Your task to perform on an android device: Open my contact list Image 0: 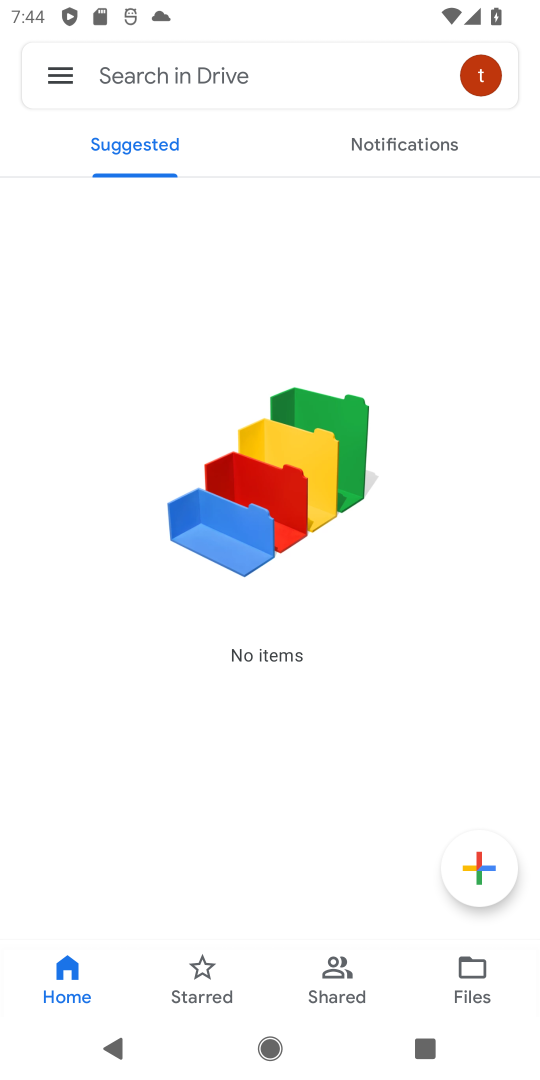
Step 0: press home button
Your task to perform on an android device: Open my contact list Image 1: 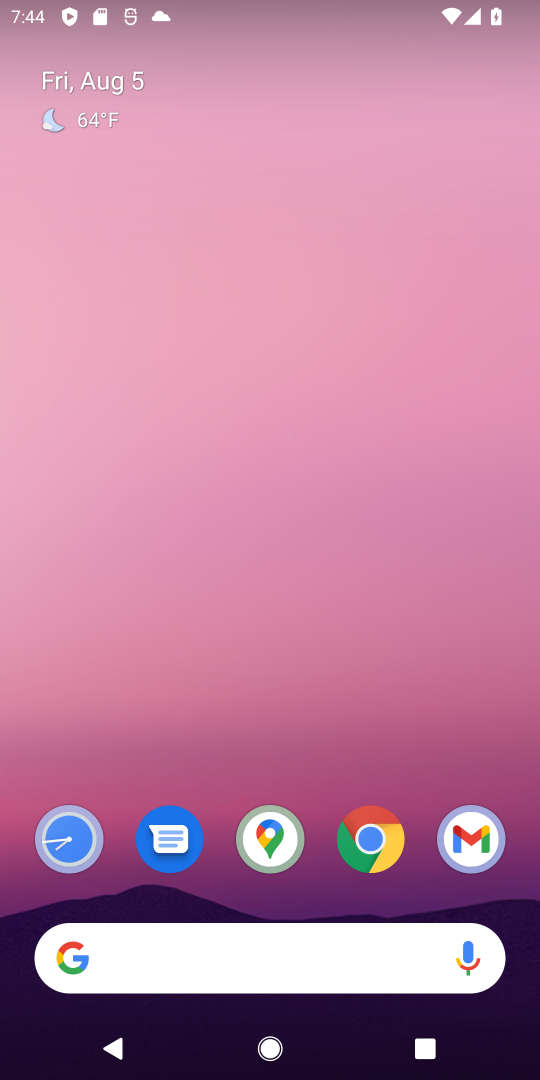
Step 1: drag from (314, 637) to (314, 110)
Your task to perform on an android device: Open my contact list Image 2: 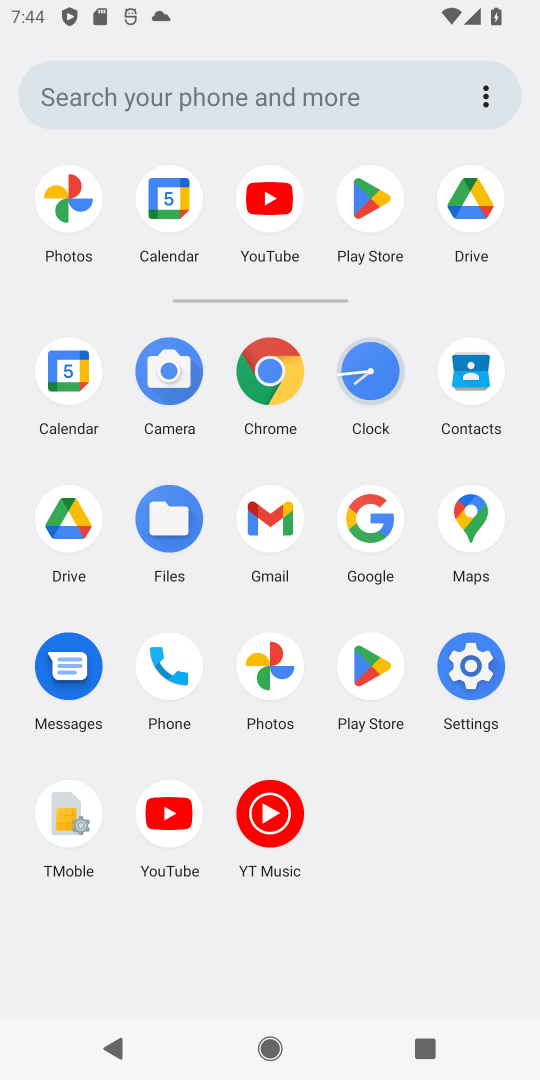
Step 2: click (477, 386)
Your task to perform on an android device: Open my contact list Image 3: 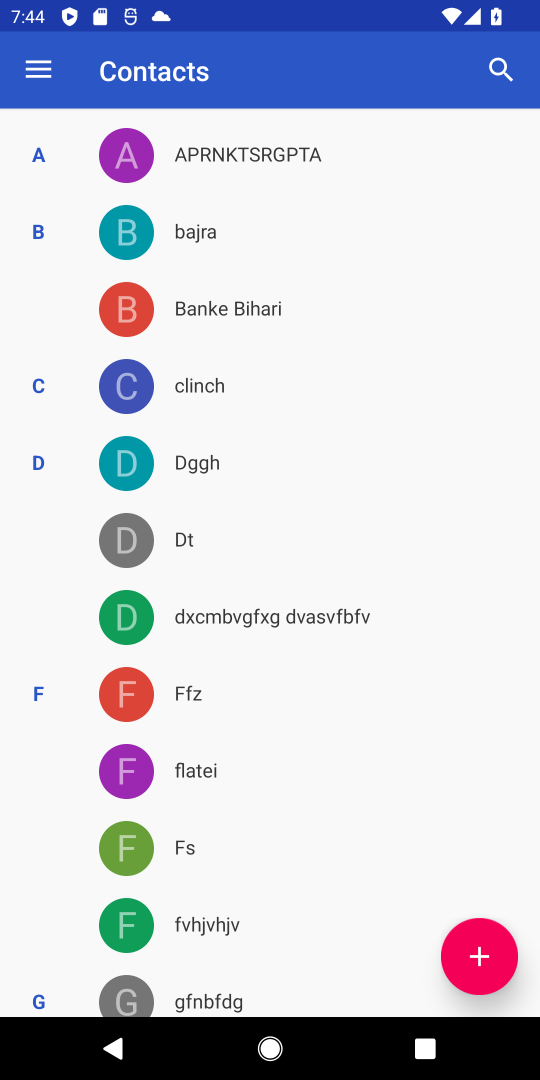
Step 3: task complete